Your task to perform on an android device: Clear all items from cart on amazon. Search for corsair k70 on amazon, select the first entry, add it to the cart, then select checkout. Image 0: 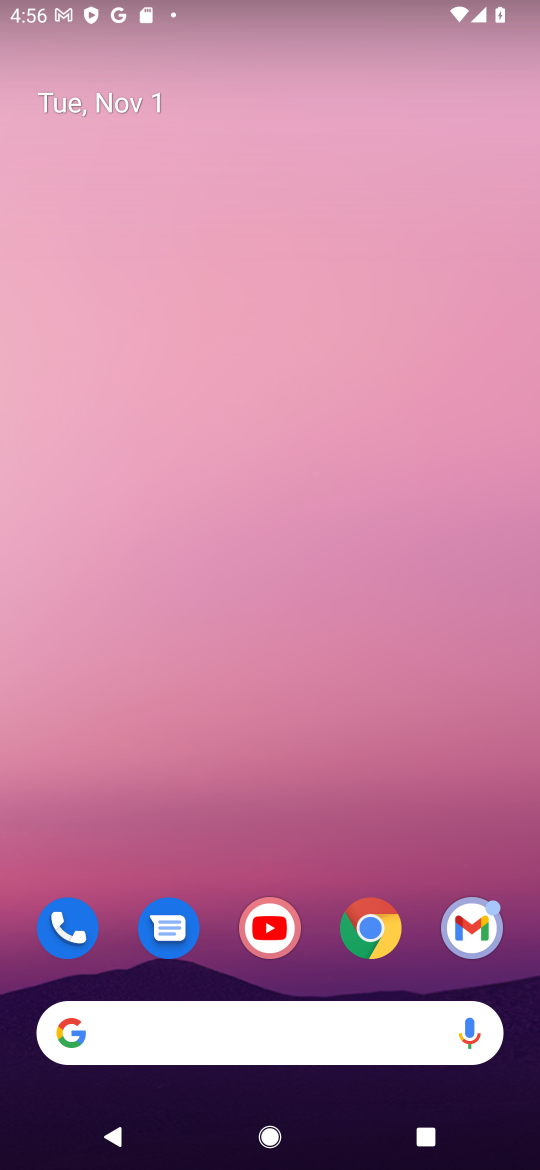
Step 0: click (370, 914)
Your task to perform on an android device: Clear all items from cart on amazon. Search for corsair k70 on amazon, select the first entry, add it to the cart, then select checkout. Image 1: 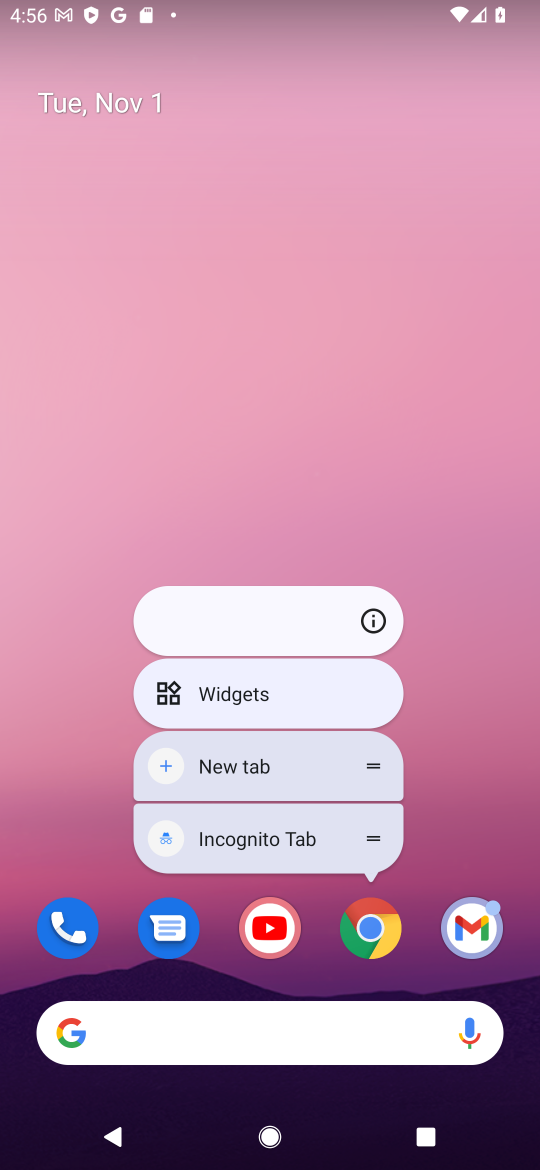
Step 1: click (370, 939)
Your task to perform on an android device: Clear all items from cart on amazon. Search for corsair k70 on amazon, select the first entry, add it to the cart, then select checkout. Image 2: 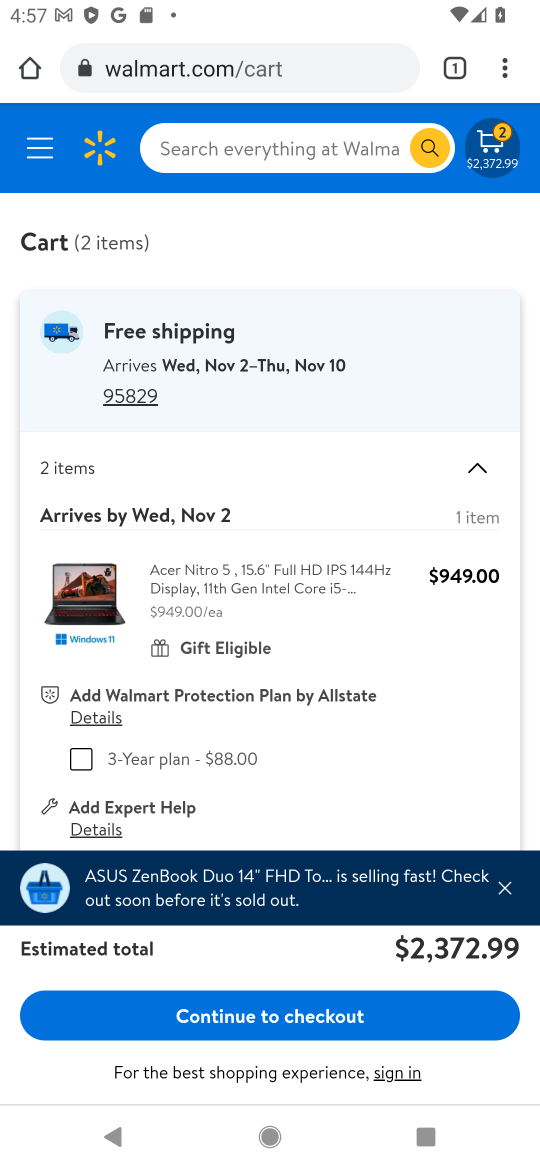
Step 2: click (260, 67)
Your task to perform on an android device: Clear all items from cart on amazon. Search for corsair k70 on amazon, select the first entry, add it to the cart, then select checkout. Image 3: 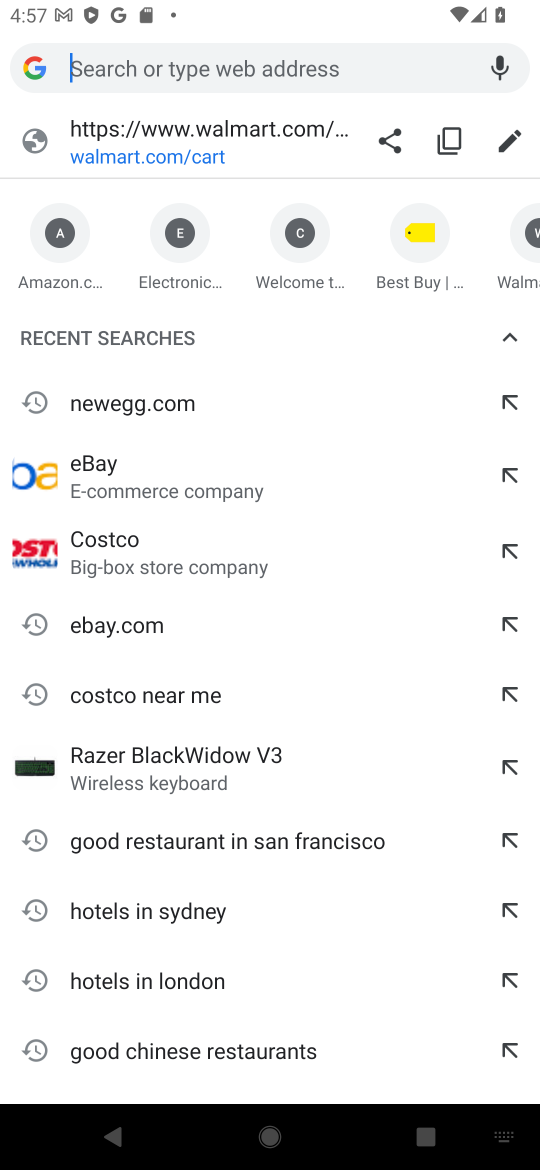
Step 3: type "amazon"
Your task to perform on an android device: Clear all items from cart on amazon. Search for corsair k70 on amazon, select the first entry, add it to the cart, then select checkout. Image 4: 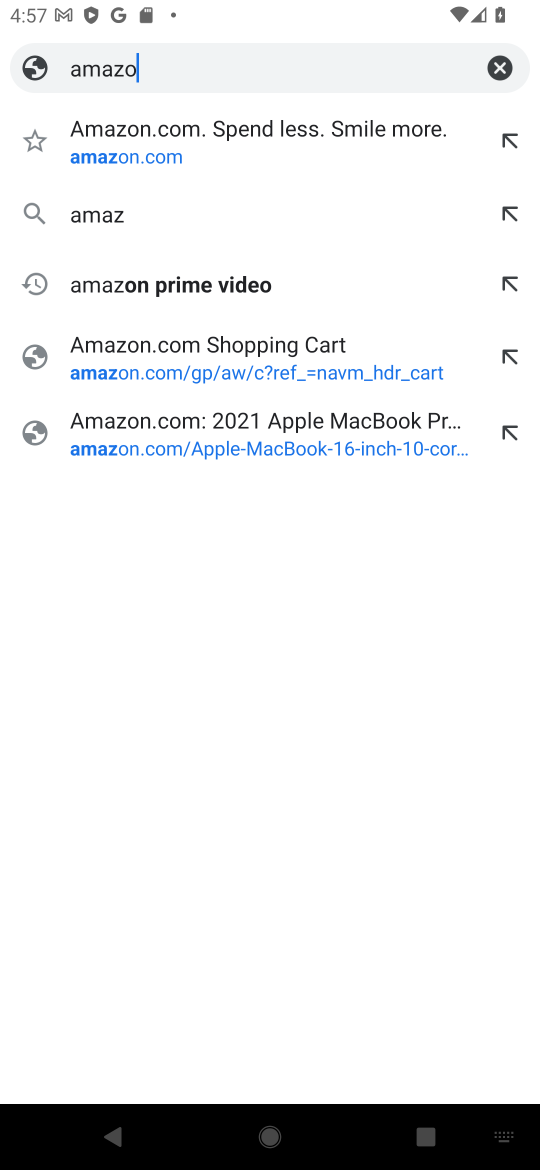
Step 4: type ""
Your task to perform on an android device: Clear all items from cart on amazon. Search for corsair k70 on amazon, select the first entry, add it to the cart, then select checkout. Image 5: 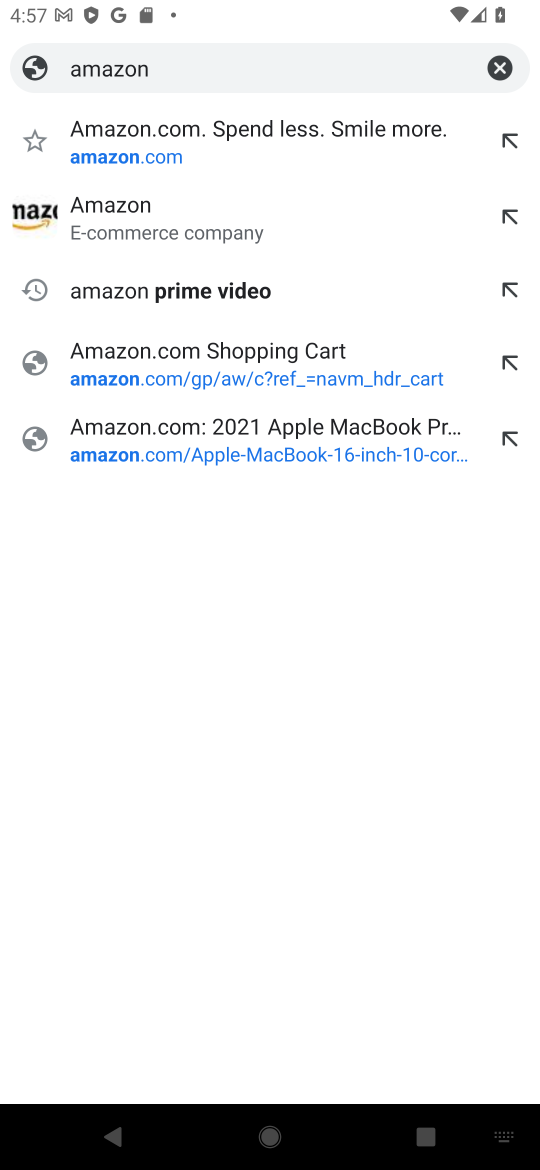
Step 5: press enter
Your task to perform on an android device: Clear all items from cart on amazon. Search for corsair k70 on amazon, select the first entry, add it to the cart, then select checkout. Image 6: 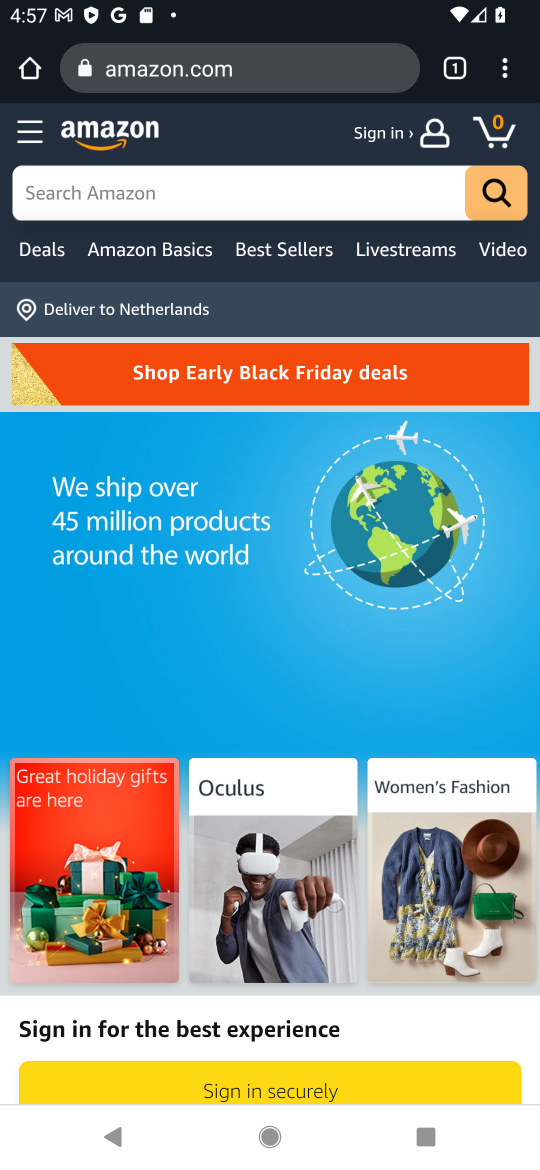
Step 6: click (489, 133)
Your task to perform on an android device: Clear all items from cart on amazon. Search for corsair k70 on amazon, select the first entry, add it to the cart, then select checkout. Image 7: 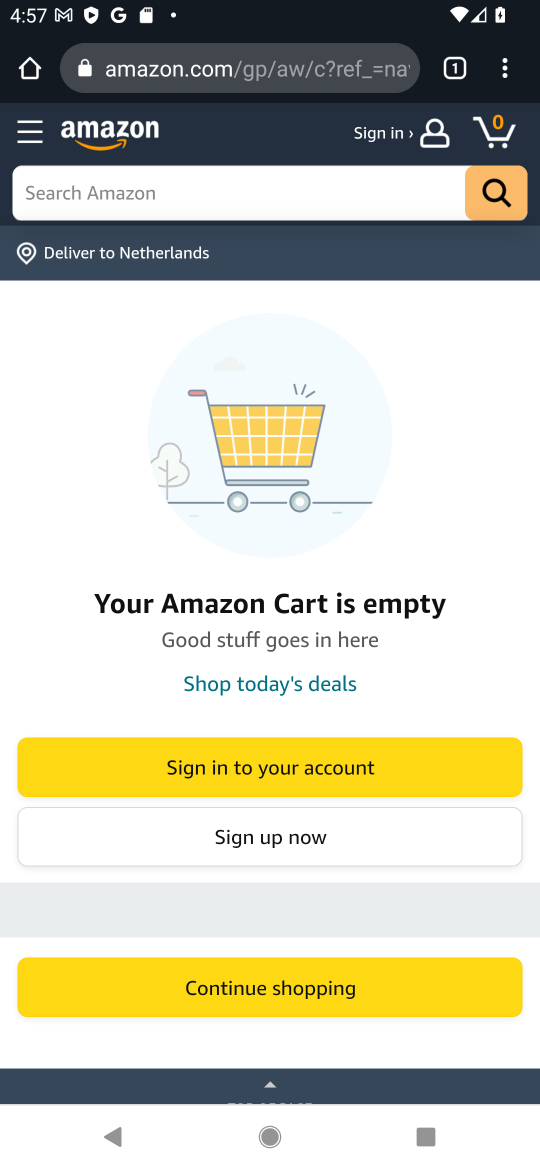
Step 7: click (282, 207)
Your task to perform on an android device: Clear all items from cart on amazon. Search for corsair k70 on amazon, select the first entry, add it to the cart, then select checkout. Image 8: 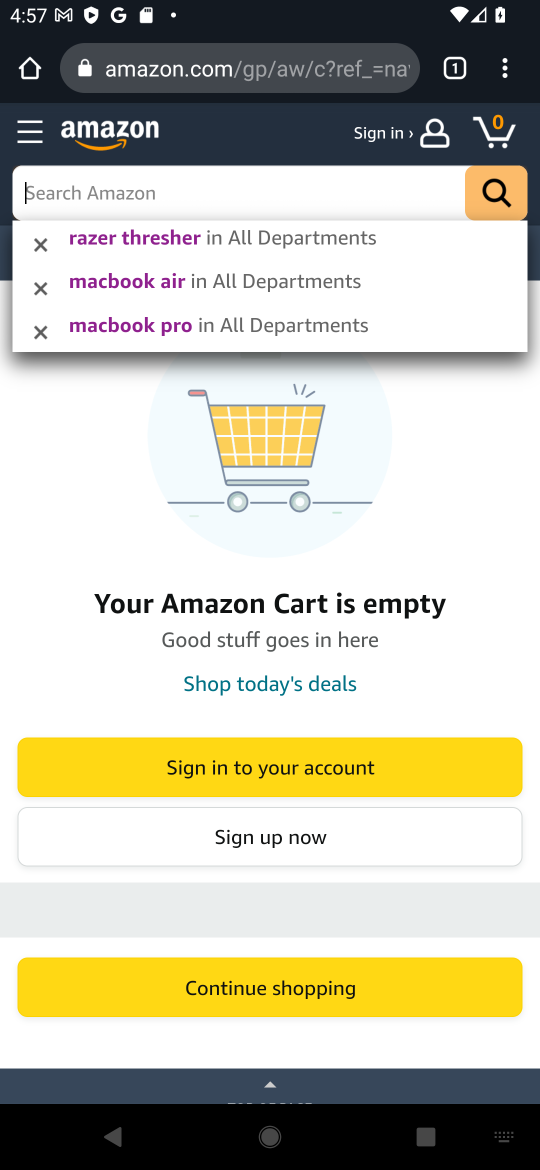
Step 8: type "corsair k70"
Your task to perform on an android device: Clear all items from cart on amazon. Search for corsair k70 on amazon, select the first entry, add it to the cart, then select checkout. Image 9: 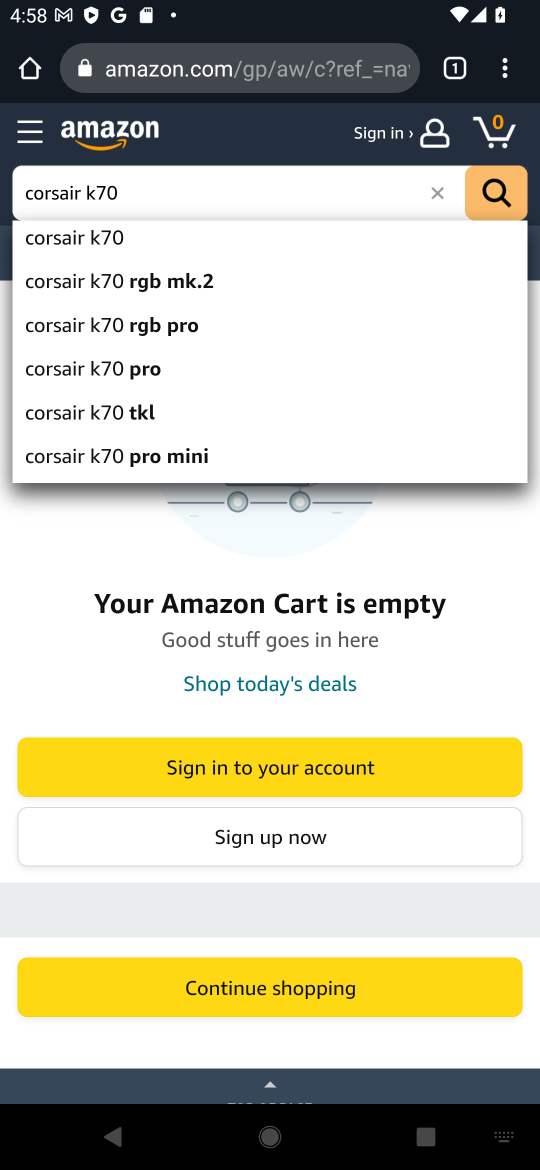
Step 9: press enter
Your task to perform on an android device: Clear all items from cart on amazon. Search for corsair k70 on amazon, select the first entry, add it to the cart, then select checkout. Image 10: 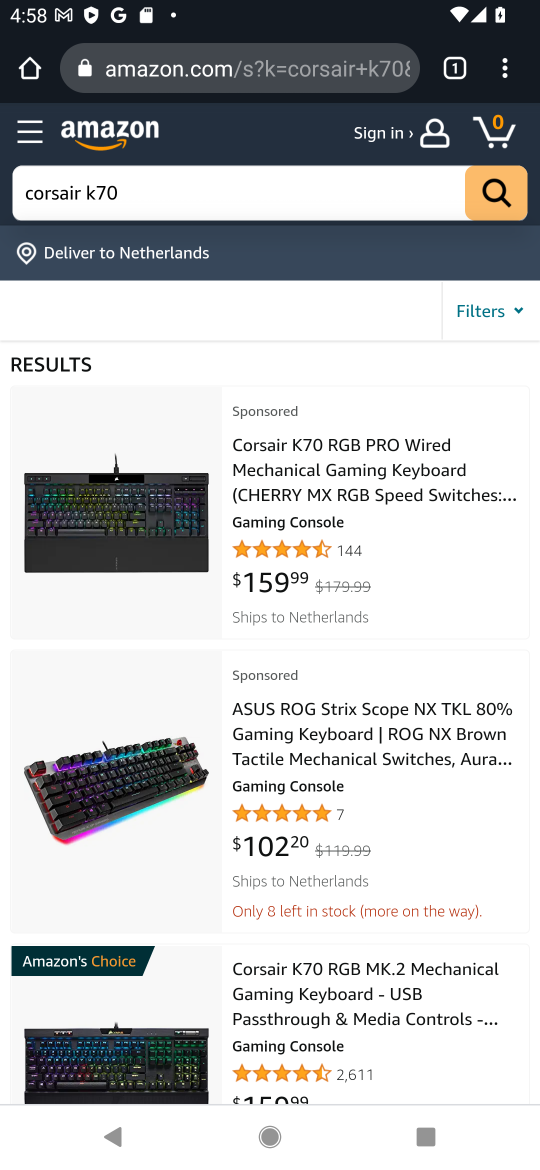
Step 10: click (403, 478)
Your task to perform on an android device: Clear all items from cart on amazon. Search for corsair k70 on amazon, select the first entry, add it to the cart, then select checkout. Image 11: 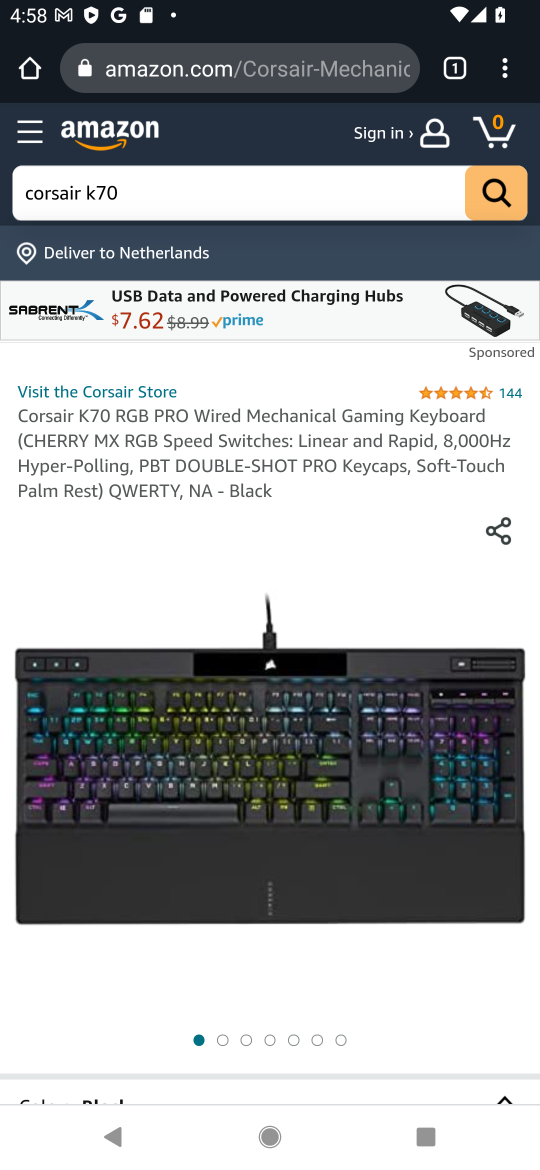
Step 11: drag from (369, 843) to (323, 177)
Your task to perform on an android device: Clear all items from cart on amazon. Search for corsair k70 on amazon, select the first entry, add it to the cart, then select checkout. Image 12: 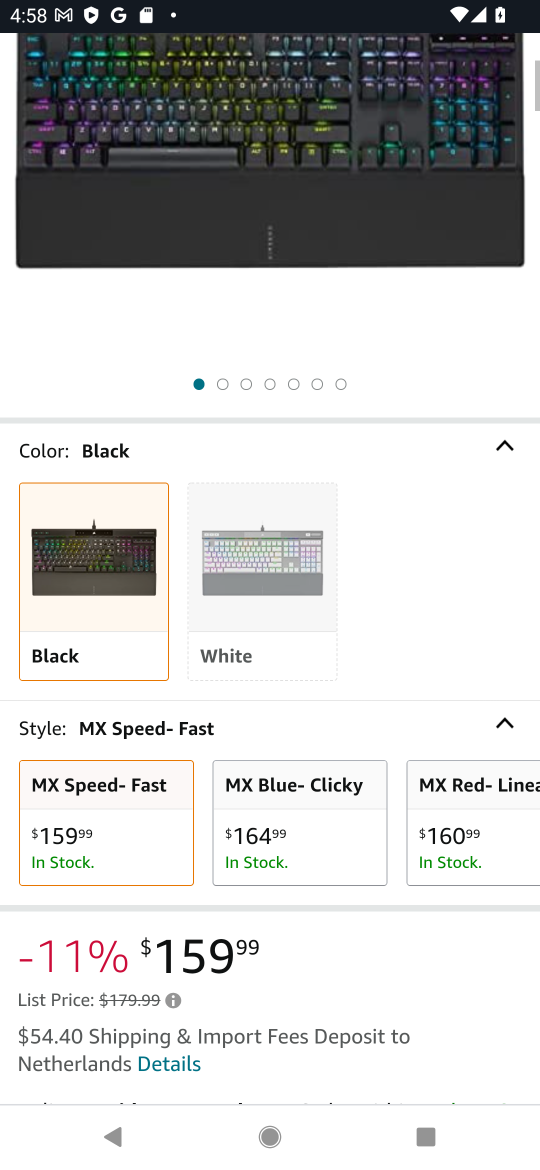
Step 12: drag from (341, 755) to (343, 156)
Your task to perform on an android device: Clear all items from cart on amazon. Search for corsair k70 on amazon, select the first entry, add it to the cart, then select checkout. Image 13: 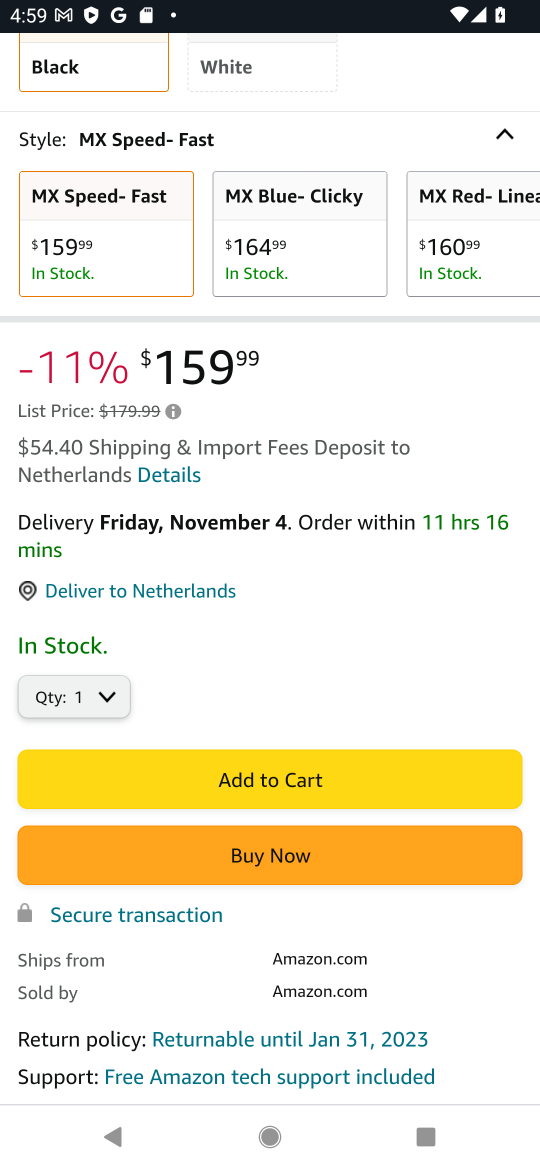
Step 13: click (353, 790)
Your task to perform on an android device: Clear all items from cart on amazon. Search for corsair k70 on amazon, select the first entry, add it to the cart, then select checkout. Image 14: 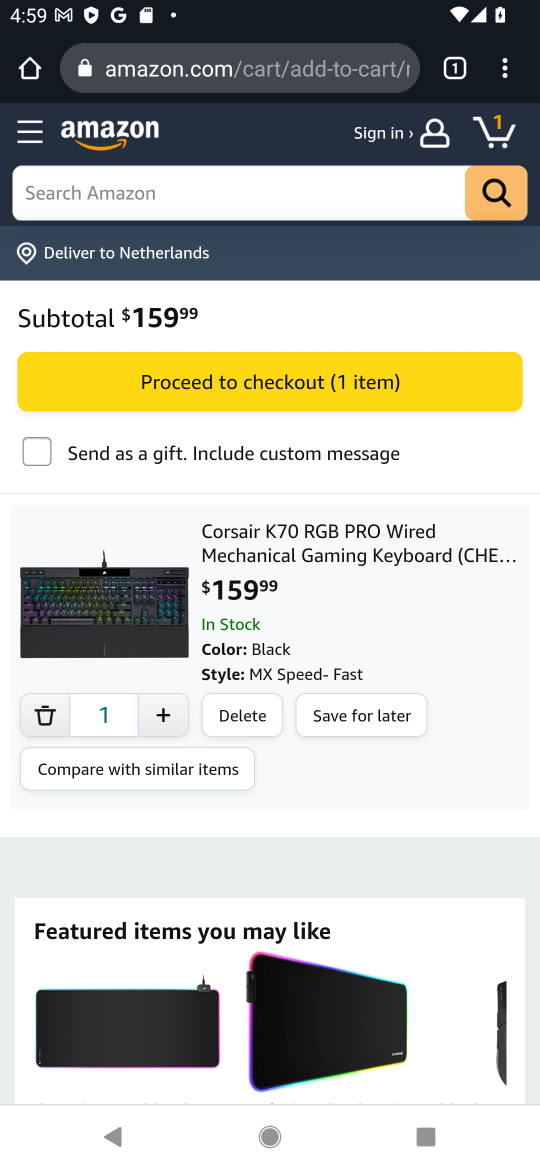
Step 14: click (329, 369)
Your task to perform on an android device: Clear all items from cart on amazon. Search for corsair k70 on amazon, select the first entry, add it to the cart, then select checkout. Image 15: 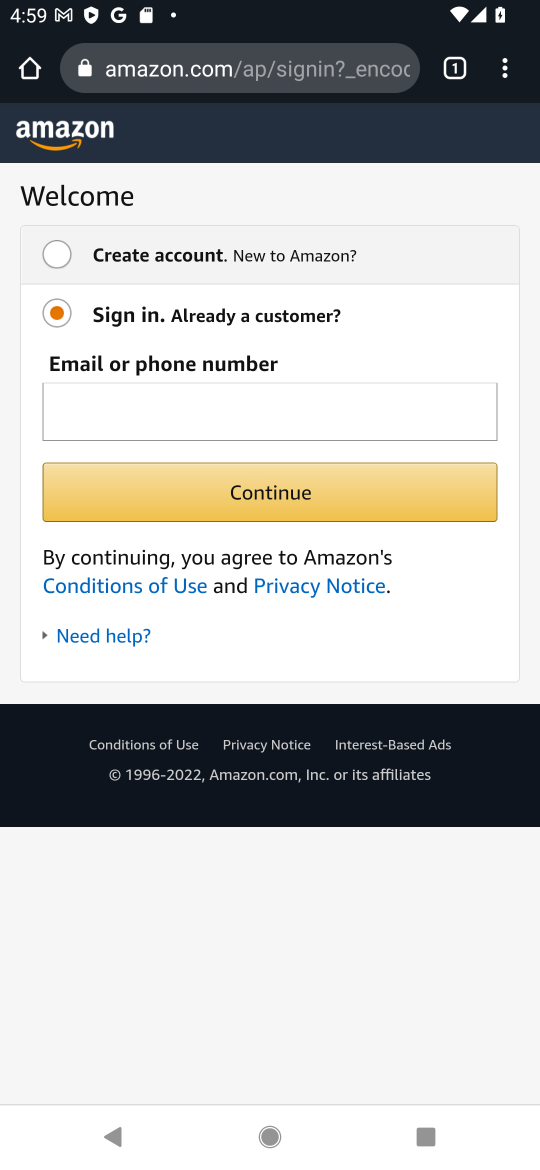
Step 15: task complete